Your task to perform on an android device: install app "DuckDuckGo Privacy Browser" Image 0: 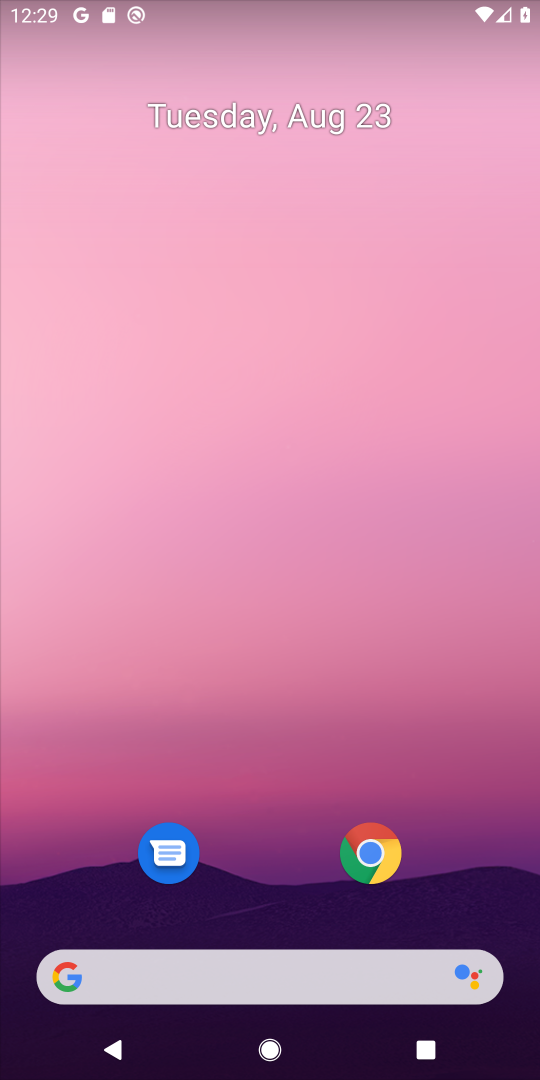
Step 0: drag from (268, 919) to (312, 129)
Your task to perform on an android device: install app "DuckDuckGo Privacy Browser" Image 1: 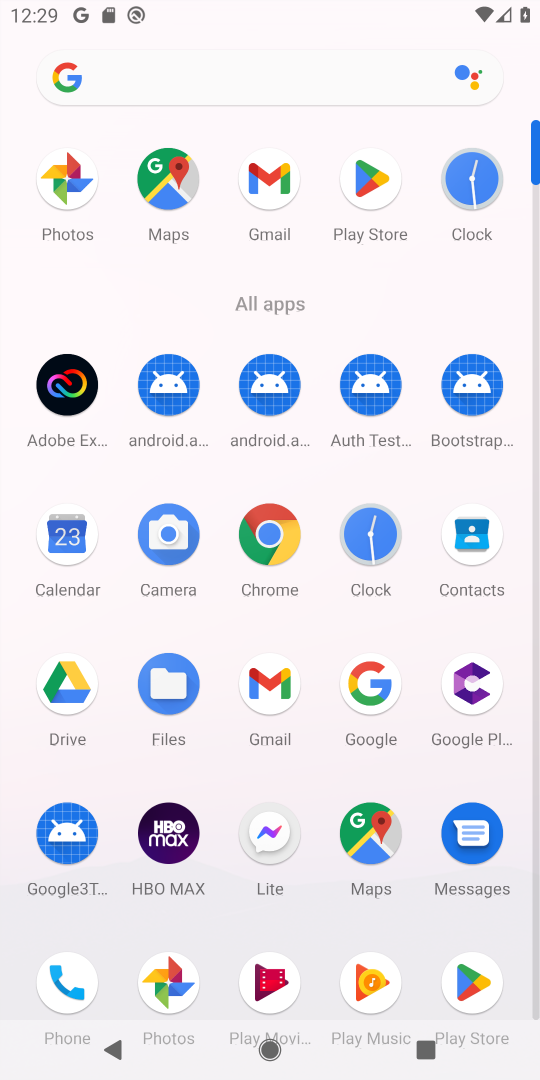
Step 1: click (475, 987)
Your task to perform on an android device: install app "DuckDuckGo Privacy Browser" Image 2: 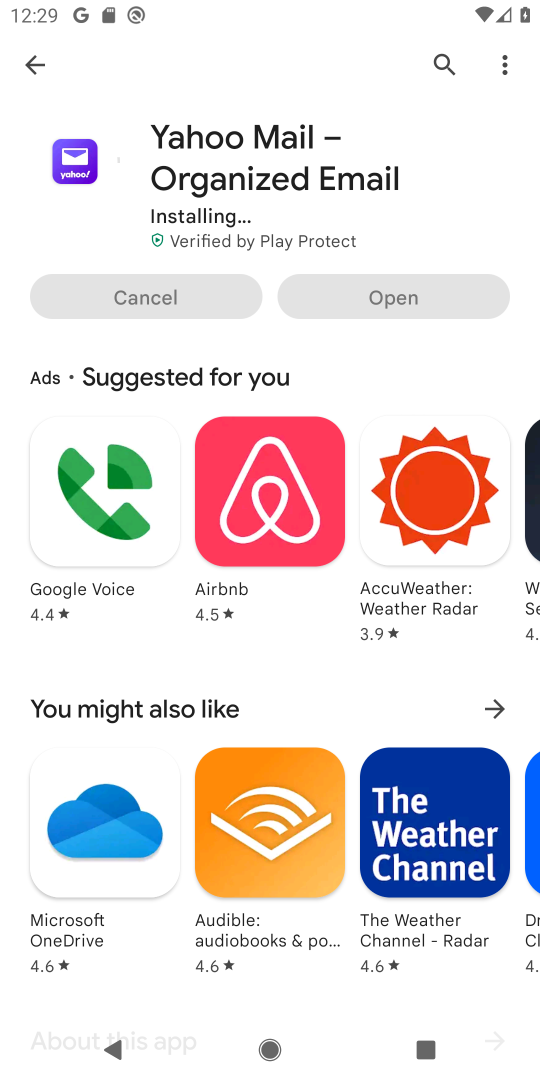
Step 2: click (441, 62)
Your task to perform on an android device: install app "DuckDuckGo Privacy Browser" Image 3: 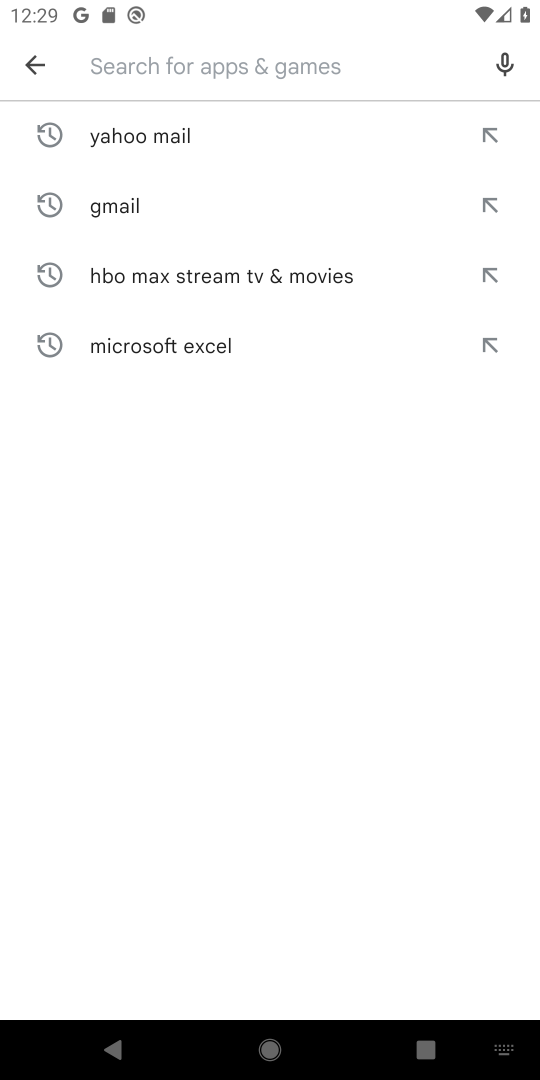
Step 3: type "DuckDuckGo Privacy Browser"
Your task to perform on an android device: install app "DuckDuckGo Privacy Browser" Image 4: 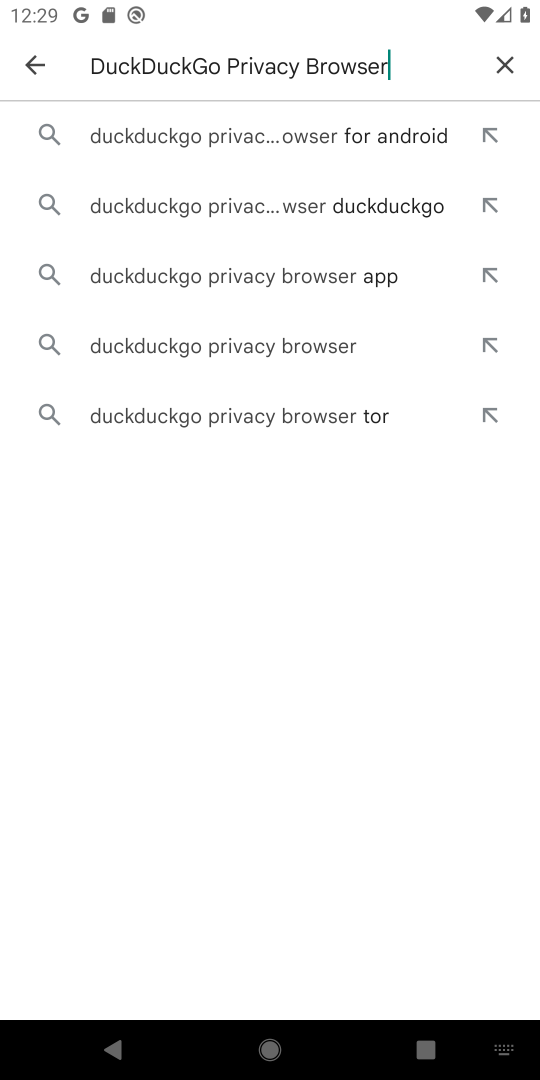
Step 4: click (154, 130)
Your task to perform on an android device: install app "DuckDuckGo Privacy Browser" Image 5: 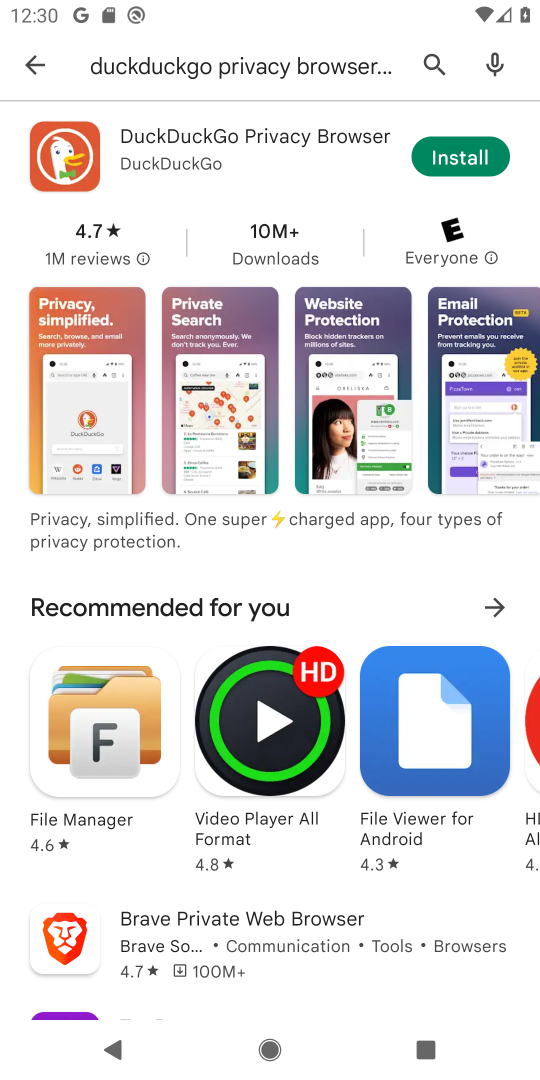
Step 5: click (470, 159)
Your task to perform on an android device: install app "DuckDuckGo Privacy Browser" Image 6: 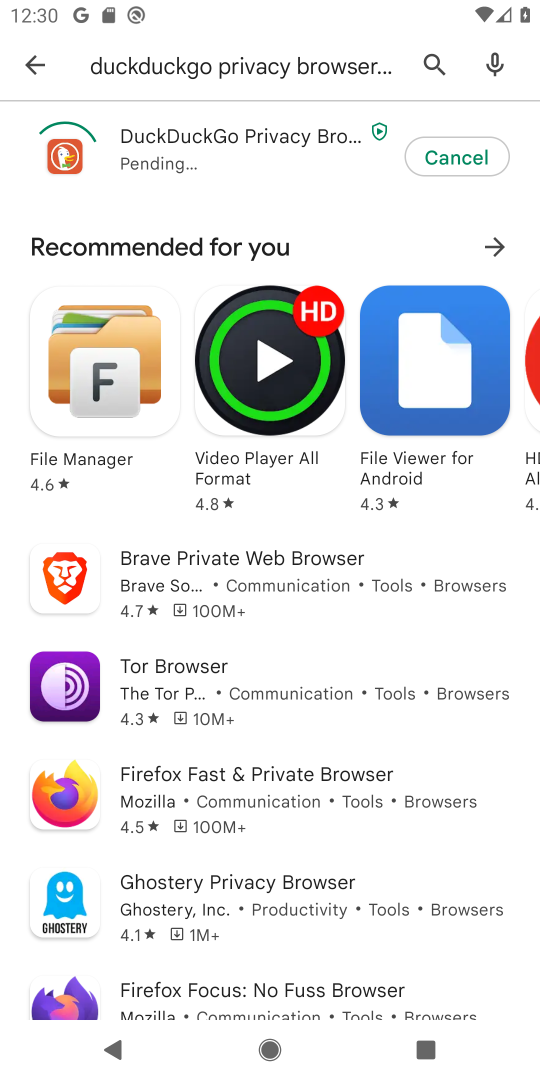
Step 6: click (150, 150)
Your task to perform on an android device: install app "DuckDuckGo Privacy Browser" Image 7: 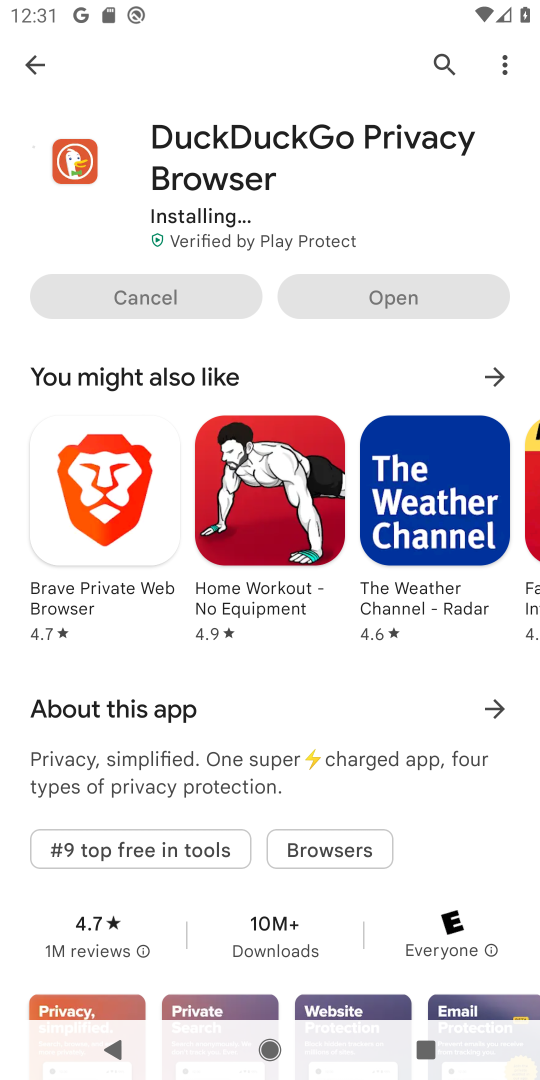
Step 7: task complete